Your task to perform on an android device: see tabs open on other devices in the chrome app Image 0: 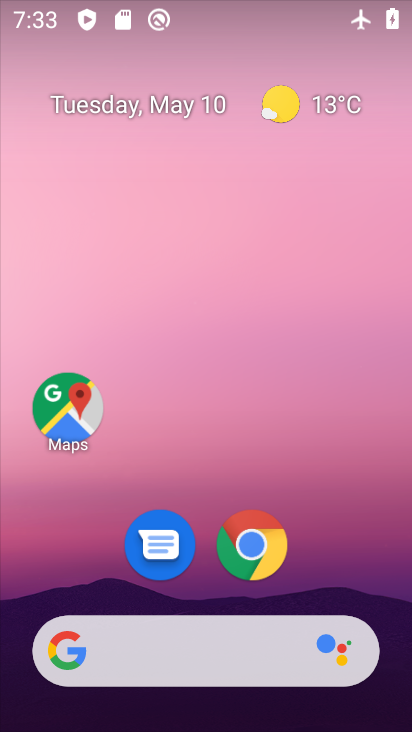
Step 0: press home button
Your task to perform on an android device: see tabs open on other devices in the chrome app Image 1: 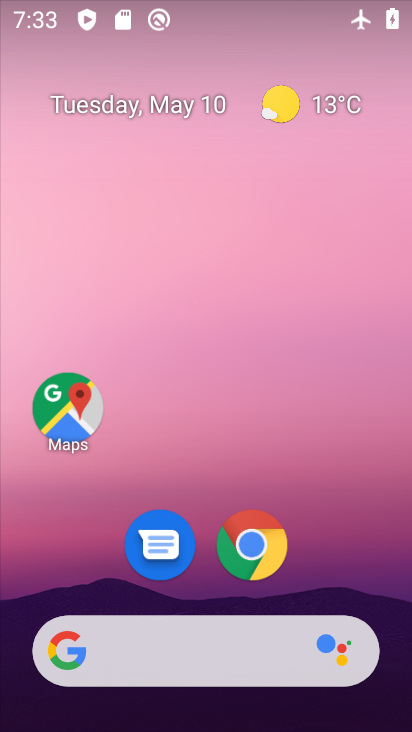
Step 1: click (253, 540)
Your task to perform on an android device: see tabs open on other devices in the chrome app Image 2: 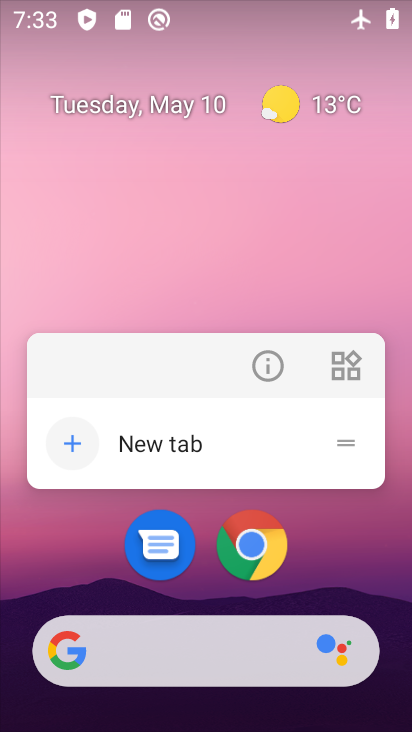
Step 2: click (255, 538)
Your task to perform on an android device: see tabs open on other devices in the chrome app Image 3: 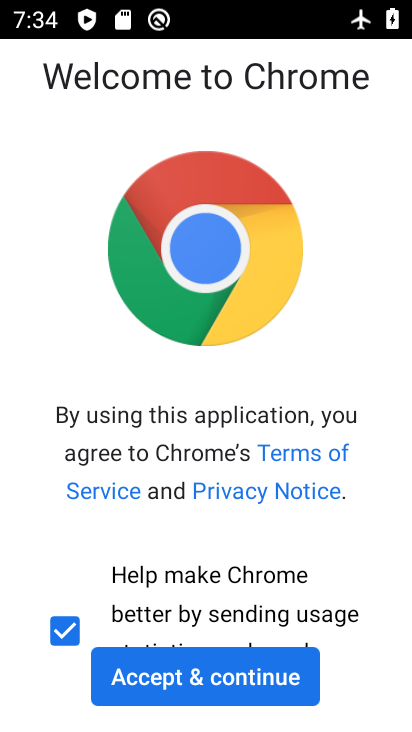
Step 3: click (211, 677)
Your task to perform on an android device: see tabs open on other devices in the chrome app Image 4: 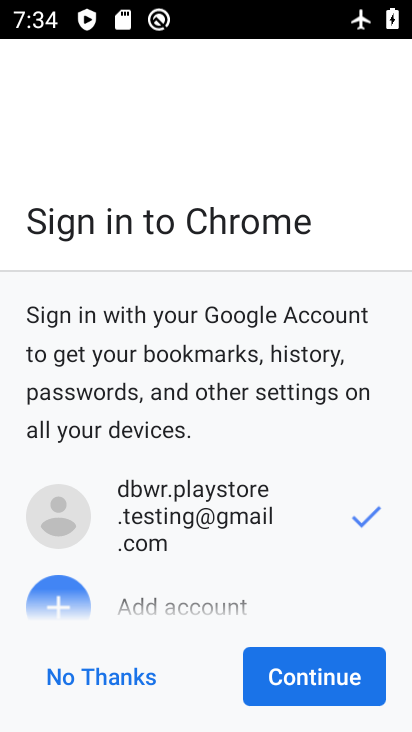
Step 4: click (281, 680)
Your task to perform on an android device: see tabs open on other devices in the chrome app Image 5: 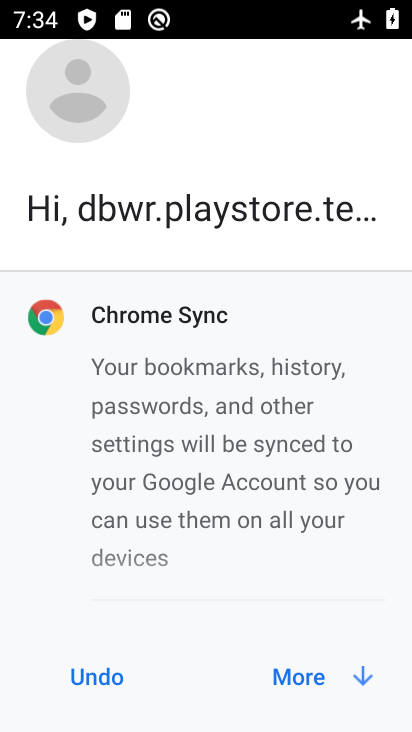
Step 5: click (289, 678)
Your task to perform on an android device: see tabs open on other devices in the chrome app Image 6: 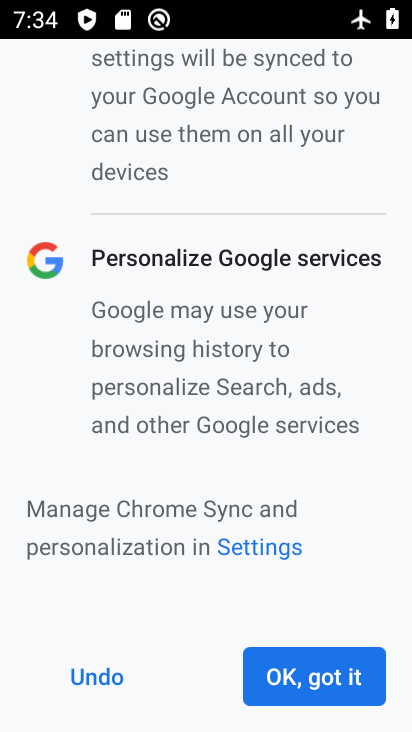
Step 6: click (302, 677)
Your task to perform on an android device: see tabs open on other devices in the chrome app Image 7: 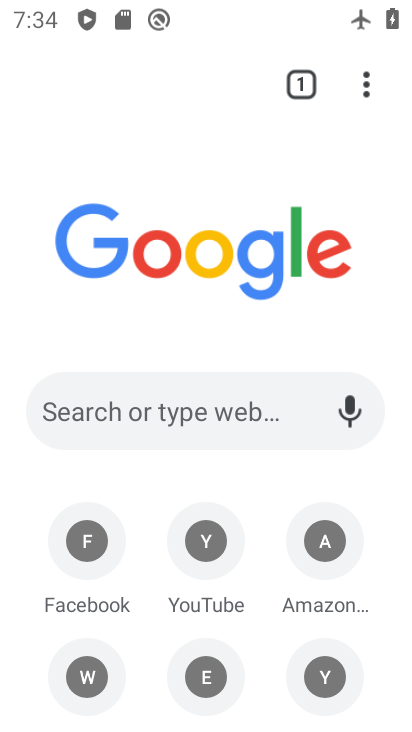
Step 7: click (369, 79)
Your task to perform on an android device: see tabs open on other devices in the chrome app Image 8: 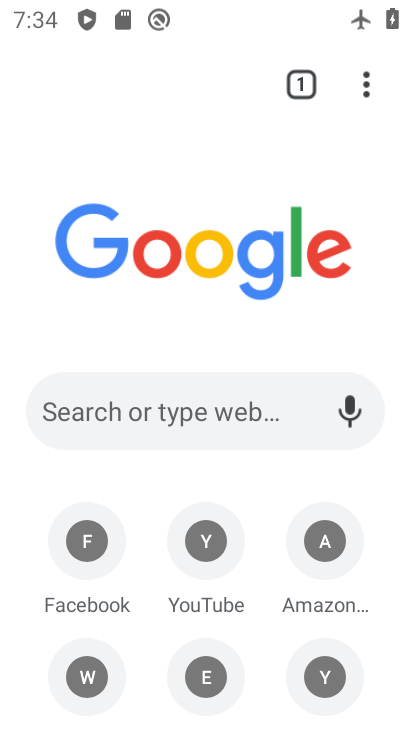
Step 8: click (367, 82)
Your task to perform on an android device: see tabs open on other devices in the chrome app Image 9: 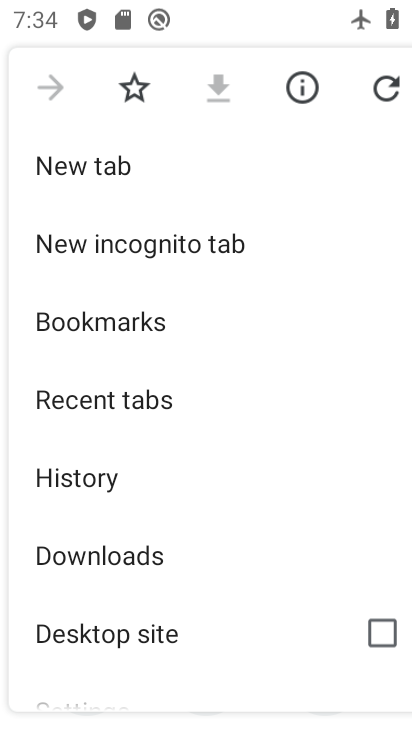
Step 9: click (133, 397)
Your task to perform on an android device: see tabs open on other devices in the chrome app Image 10: 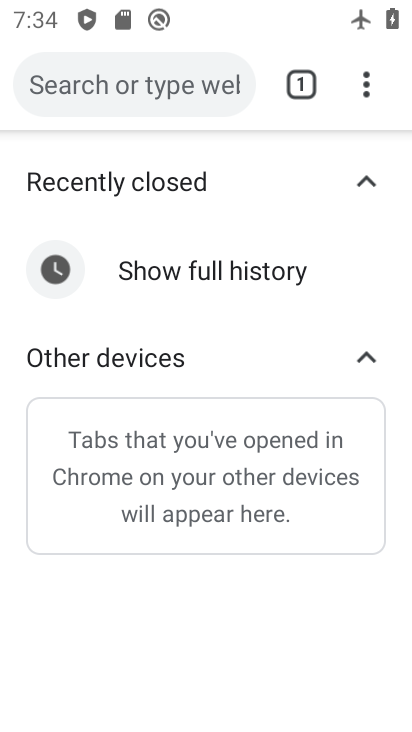
Step 10: task complete